Your task to perform on an android device: turn notification dots off Image 0: 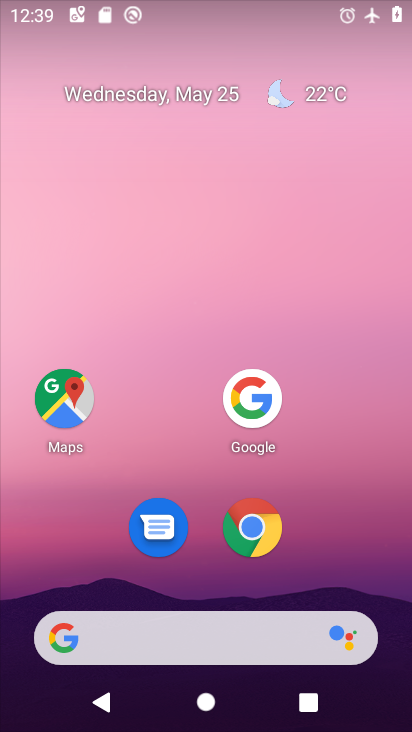
Step 0: press home button
Your task to perform on an android device: turn notification dots off Image 1: 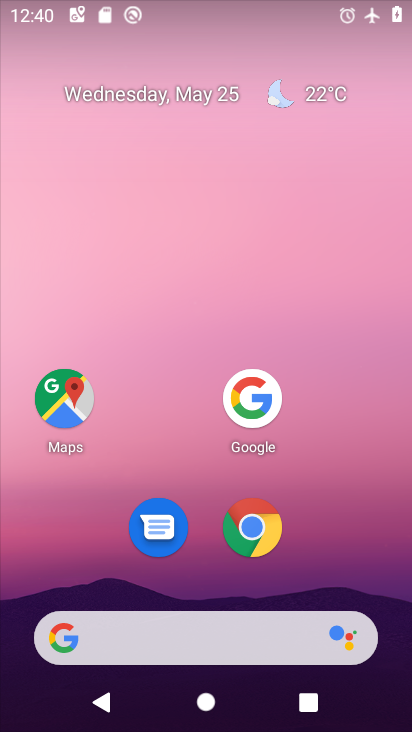
Step 1: drag from (146, 636) to (280, 128)
Your task to perform on an android device: turn notification dots off Image 2: 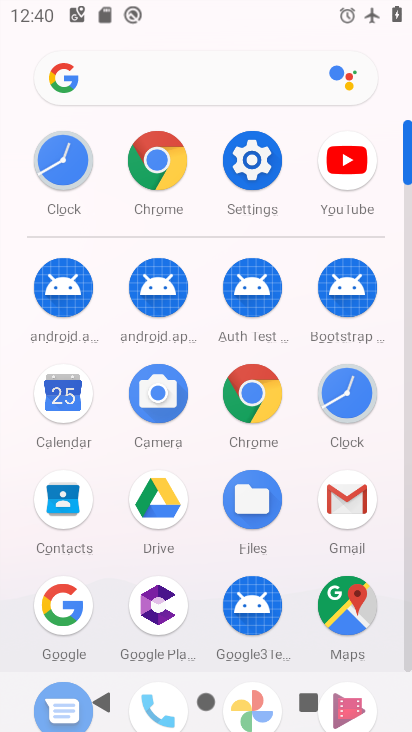
Step 2: click (243, 168)
Your task to perform on an android device: turn notification dots off Image 3: 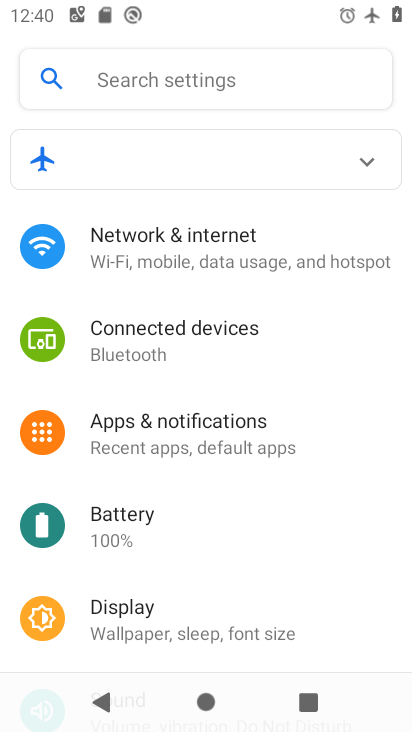
Step 3: click (213, 440)
Your task to perform on an android device: turn notification dots off Image 4: 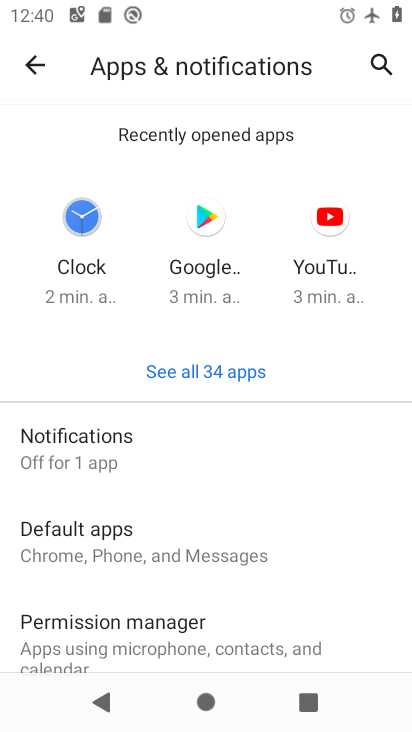
Step 4: click (107, 452)
Your task to perform on an android device: turn notification dots off Image 5: 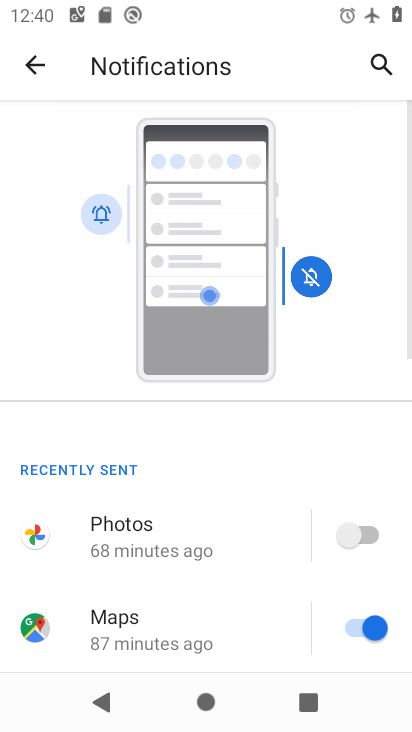
Step 5: drag from (216, 624) to (320, 72)
Your task to perform on an android device: turn notification dots off Image 6: 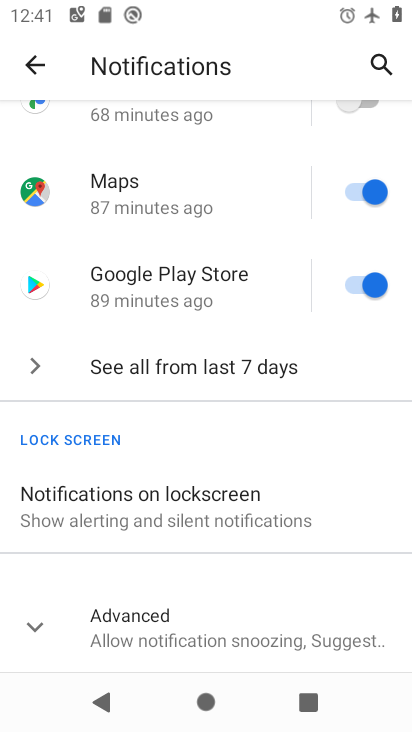
Step 6: drag from (199, 574) to (261, 328)
Your task to perform on an android device: turn notification dots off Image 7: 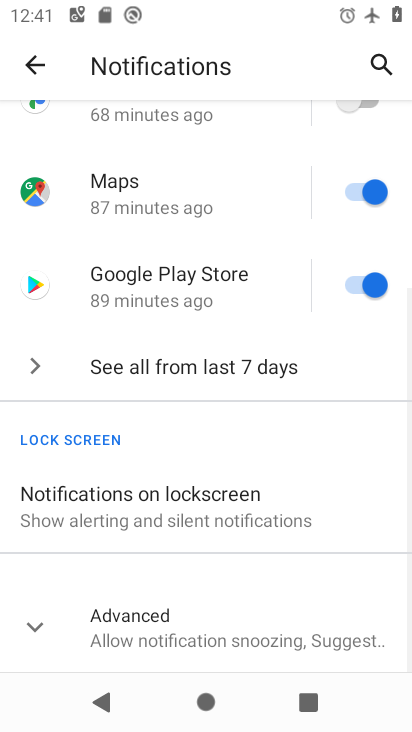
Step 7: click (168, 592)
Your task to perform on an android device: turn notification dots off Image 8: 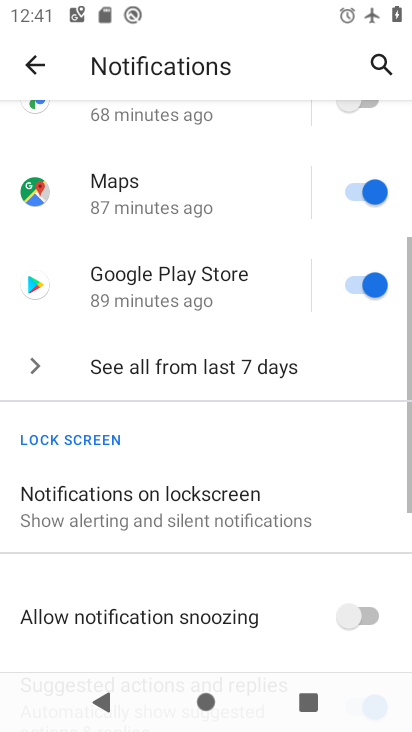
Step 8: drag from (204, 629) to (305, 191)
Your task to perform on an android device: turn notification dots off Image 9: 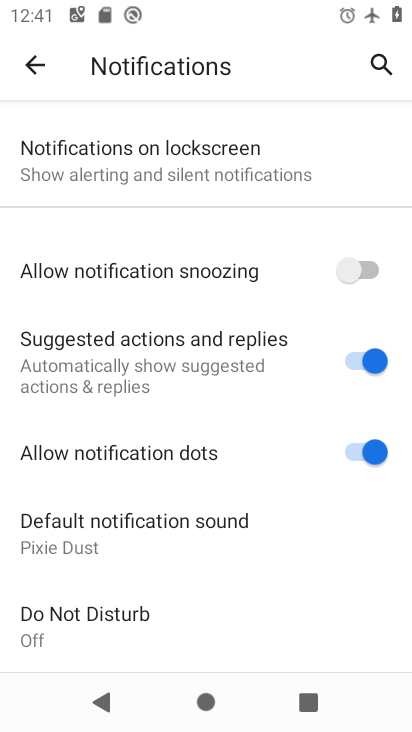
Step 9: click (354, 454)
Your task to perform on an android device: turn notification dots off Image 10: 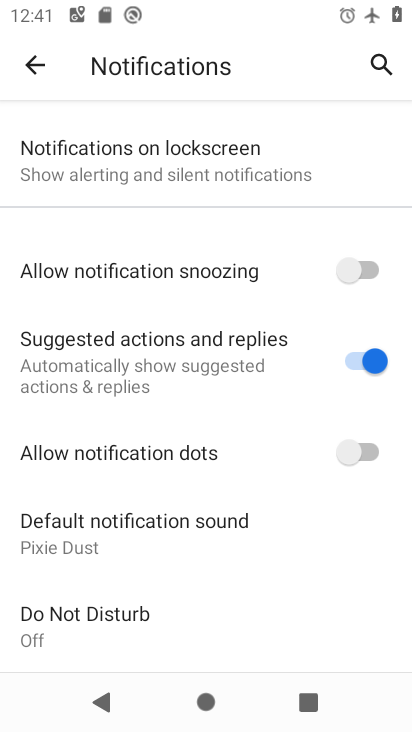
Step 10: task complete